Your task to perform on an android device: Do I have any events this weekend? Image 0: 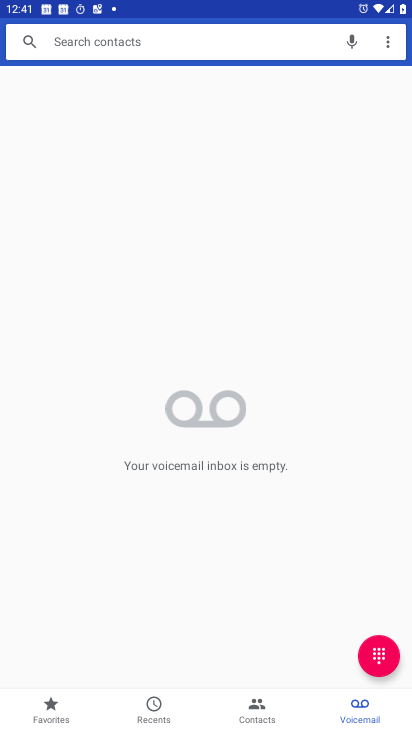
Step 0: press home button
Your task to perform on an android device: Do I have any events this weekend? Image 1: 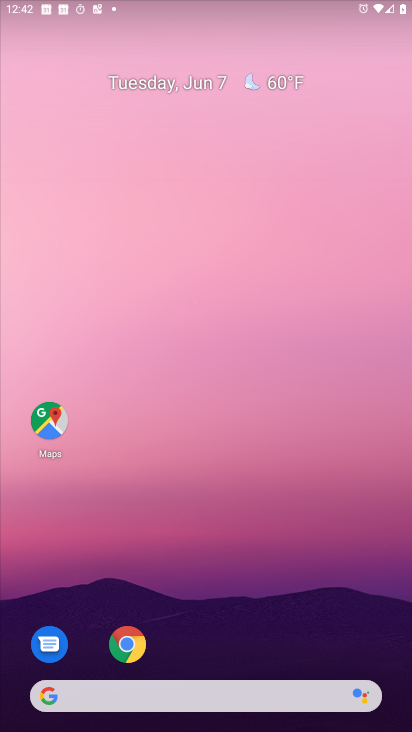
Step 1: drag from (125, 721) to (154, 143)
Your task to perform on an android device: Do I have any events this weekend? Image 2: 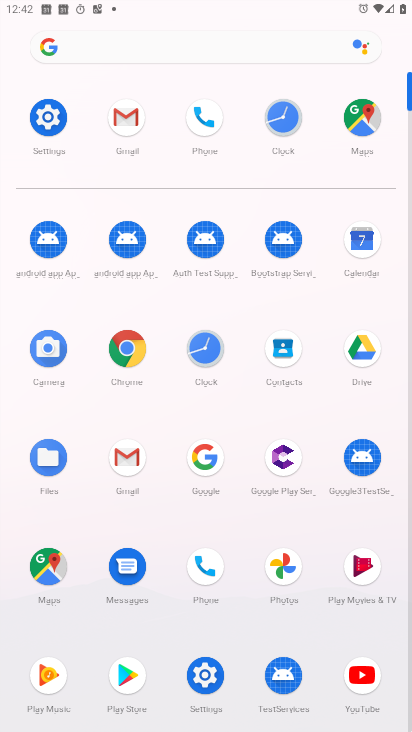
Step 2: click (364, 242)
Your task to perform on an android device: Do I have any events this weekend? Image 3: 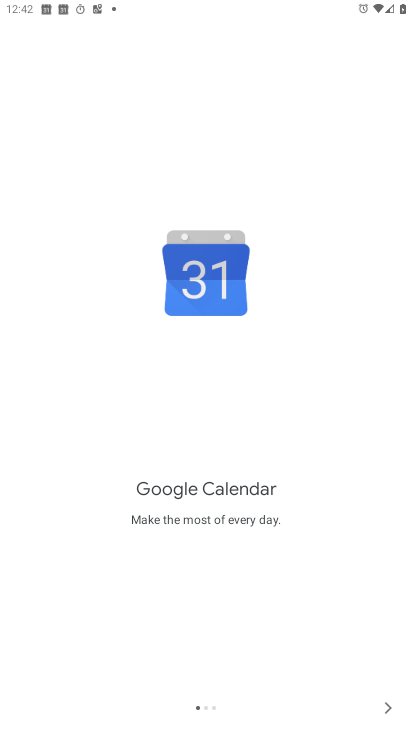
Step 3: click (385, 709)
Your task to perform on an android device: Do I have any events this weekend? Image 4: 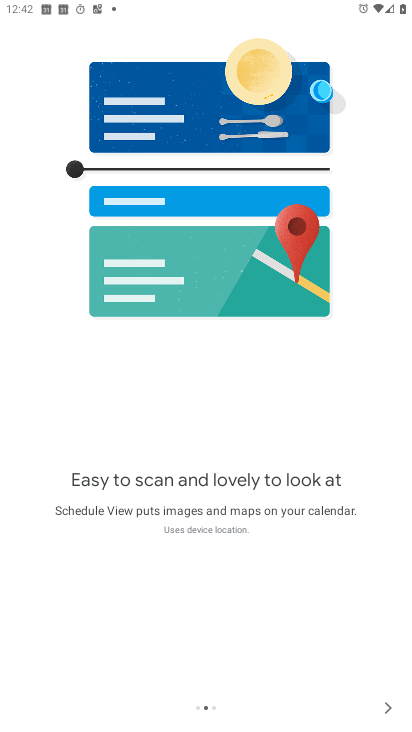
Step 4: click (385, 709)
Your task to perform on an android device: Do I have any events this weekend? Image 5: 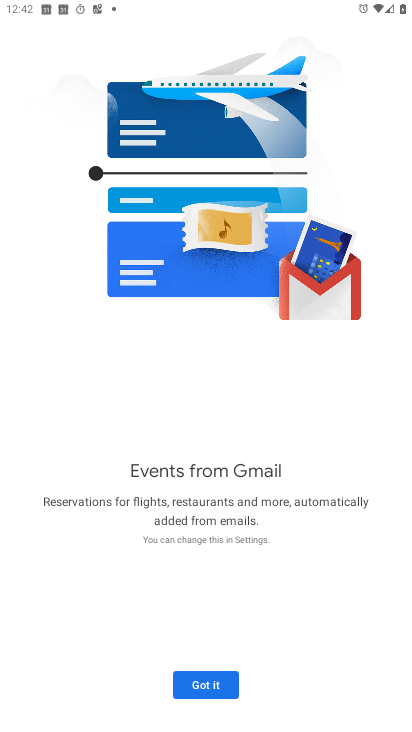
Step 5: click (198, 677)
Your task to perform on an android device: Do I have any events this weekend? Image 6: 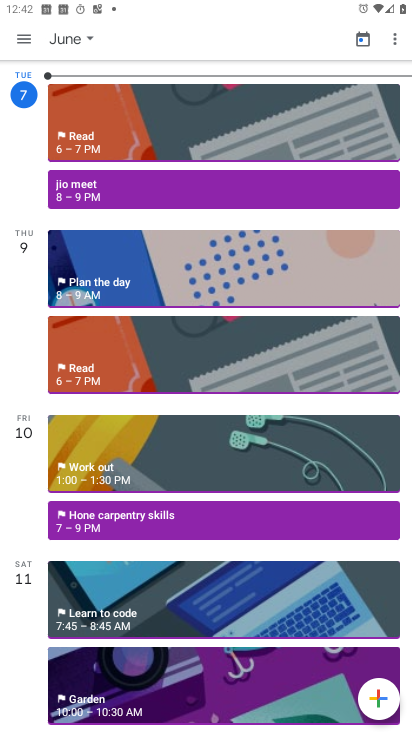
Step 6: click (16, 43)
Your task to perform on an android device: Do I have any events this weekend? Image 7: 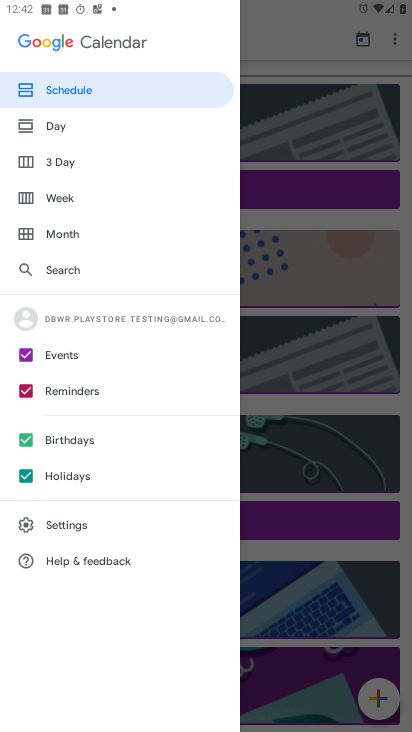
Step 7: click (27, 393)
Your task to perform on an android device: Do I have any events this weekend? Image 8: 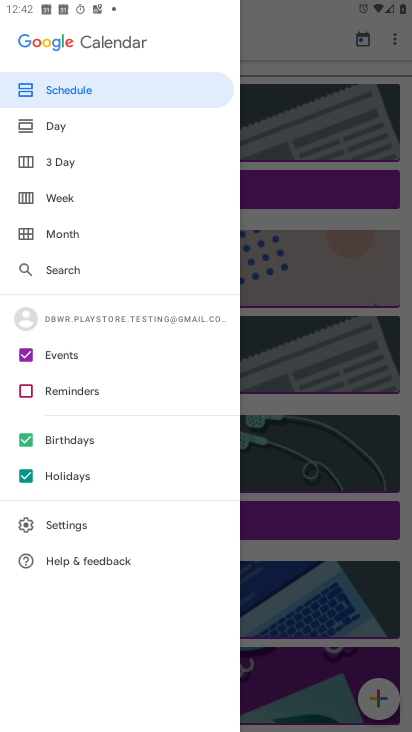
Step 8: click (31, 443)
Your task to perform on an android device: Do I have any events this weekend? Image 9: 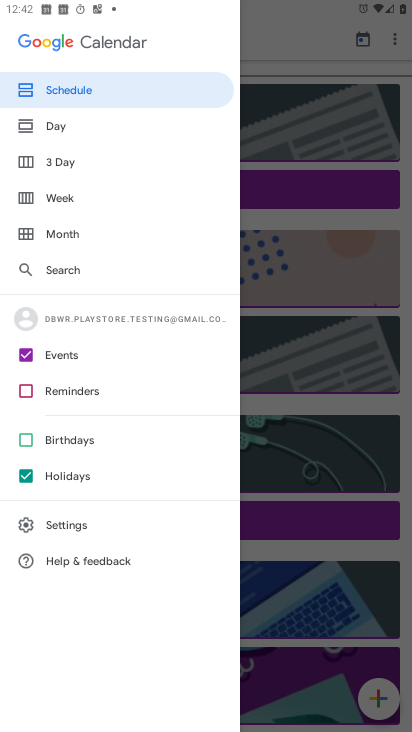
Step 9: click (29, 471)
Your task to perform on an android device: Do I have any events this weekend? Image 10: 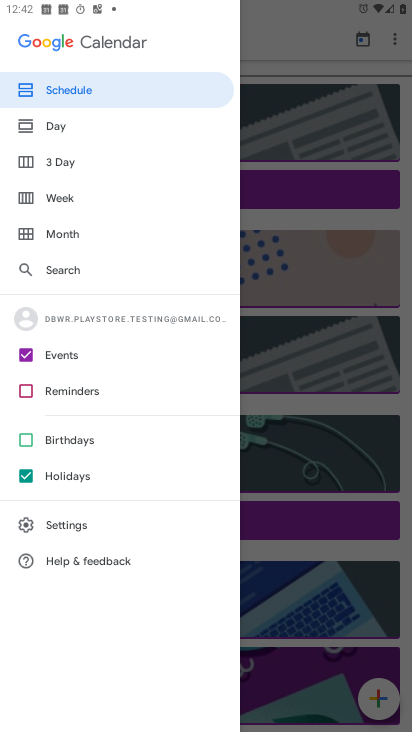
Step 10: click (64, 161)
Your task to perform on an android device: Do I have any events this weekend? Image 11: 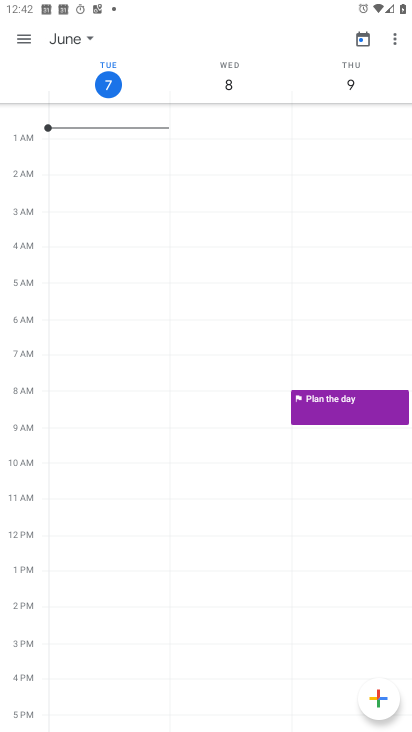
Step 11: task complete